Your task to perform on an android device: turn vacation reply on in the gmail app Image 0: 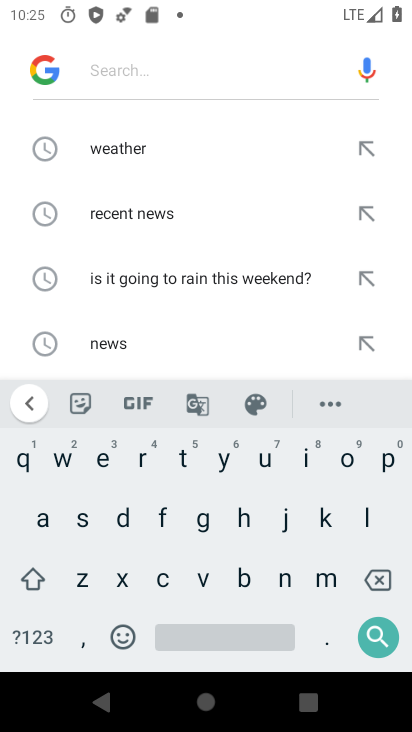
Step 0: press back button
Your task to perform on an android device: turn vacation reply on in the gmail app Image 1: 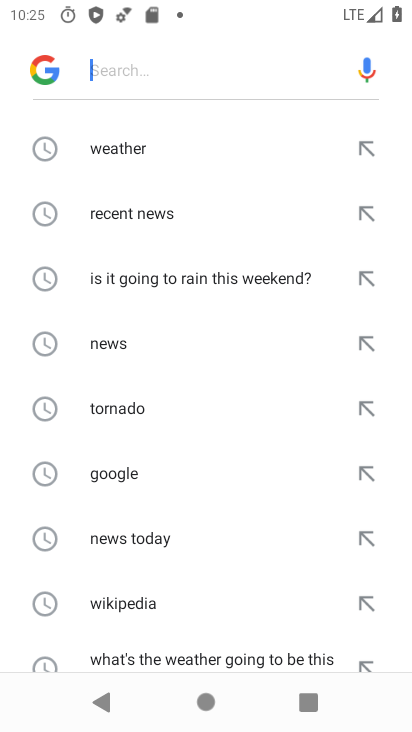
Step 1: press back button
Your task to perform on an android device: turn vacation reply on in the gmail app Image 2: 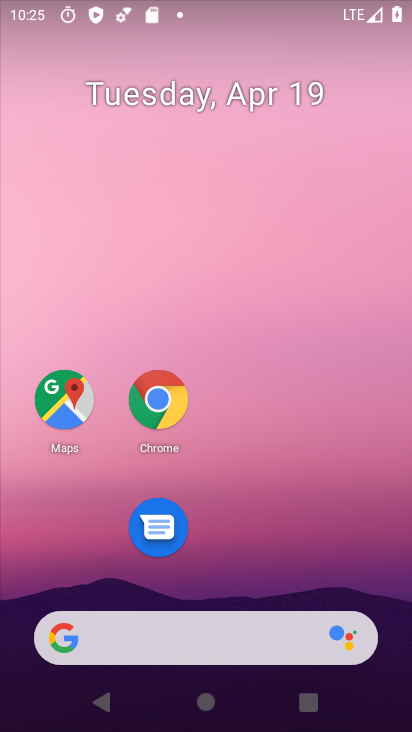
Step 2: drag from (305, 579) to (275, 227)
Your task to perform on an android device: turn vacation reply on in the gmail app Image 3: 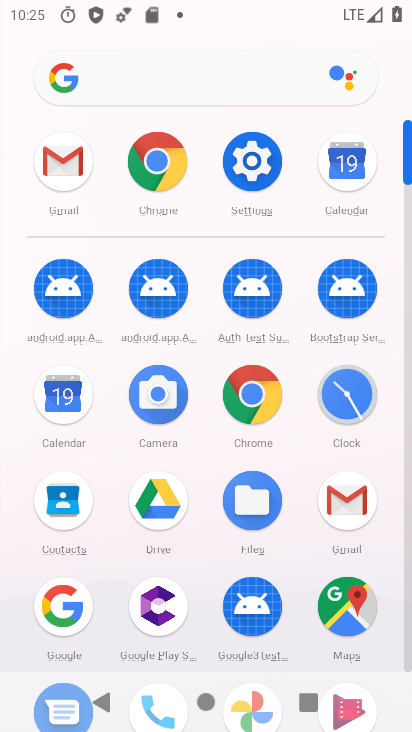
Step 3: click (55, 164)
Your task to perform on an android device: turn vacation reply on in the gmail app Image 4: 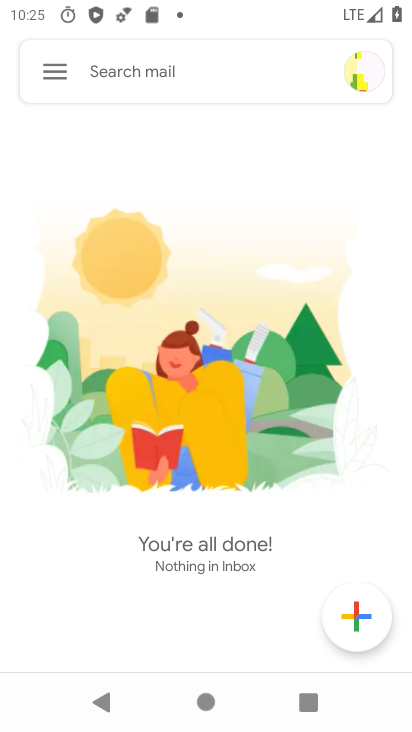
Step 4: click (45, 74)
Your task to perform on an android device: turn vacation reply on in the gmail app Image 5: 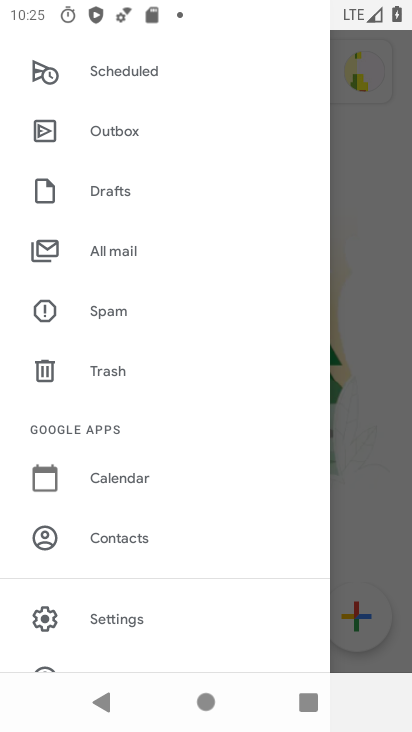
Step 5: click (105, 613)
Your task to perform on an android device: turn vacation reply on in the gmail app Image 6: 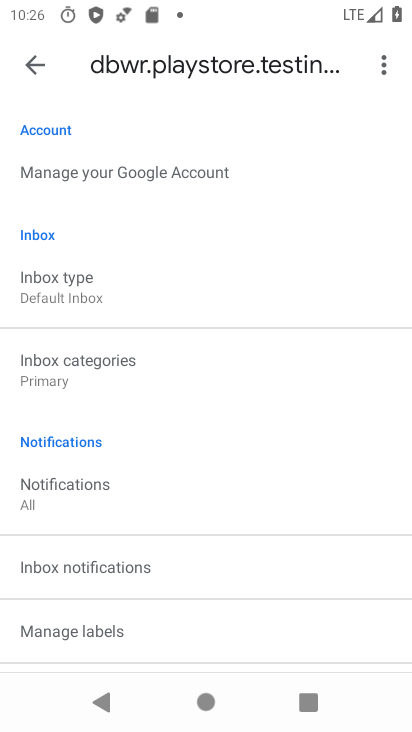
Step 6: drag from (180, 546) to (299, 255)
Your task to perform on an android device: turn vacation reply on in the gmail app Image 7: 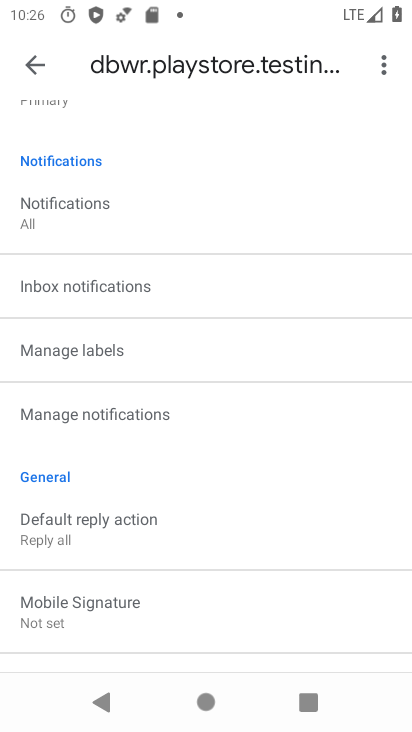
Step 7: drag from (115, 586) to (262, 261)
Your task to perform on an android device: turn vacation reply on in the gmail app Image 8: 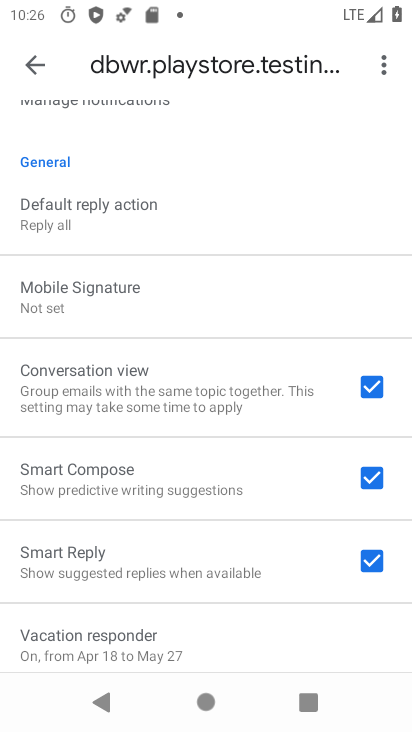
Step 8: drag from (174, 537) to (217, 464)
Your task to perform on an android device: turn vacation reply on in the gmail app Image 9: 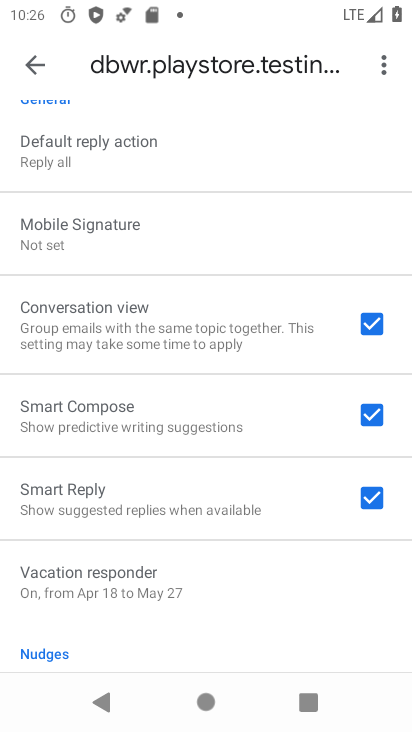
Step 9: click (96, 568)
Your task to perform on an android device: turn vacation reply on in the gmail app Image 10: 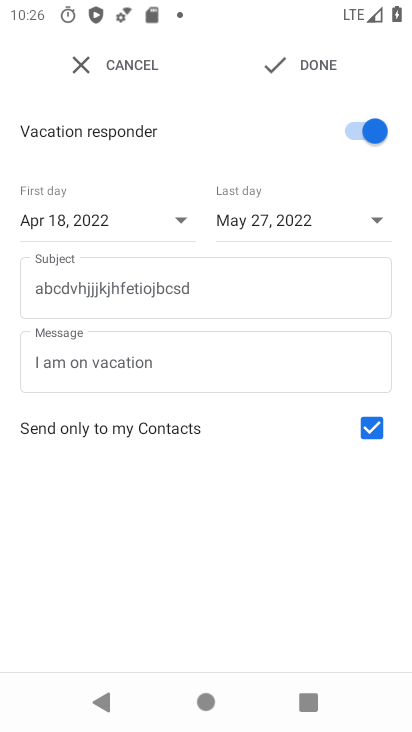
Step 10: task complete